Your task to perform on an android device: Search for sushi restaurants on Maps Image 0: 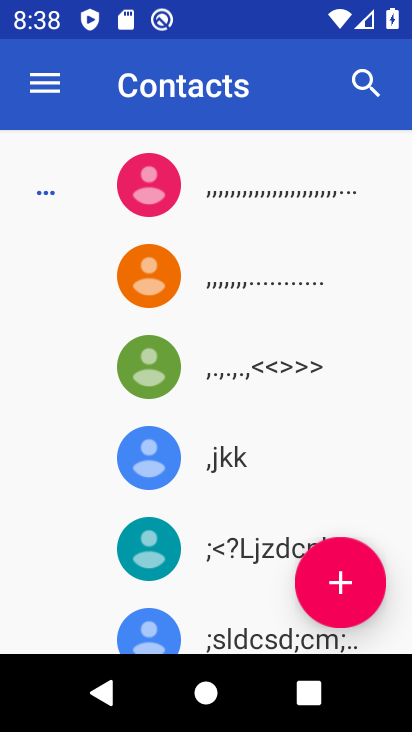
Step 0: press home button
Your task to perform on an android device: Search for sushi restaurants on Maps Image 1: 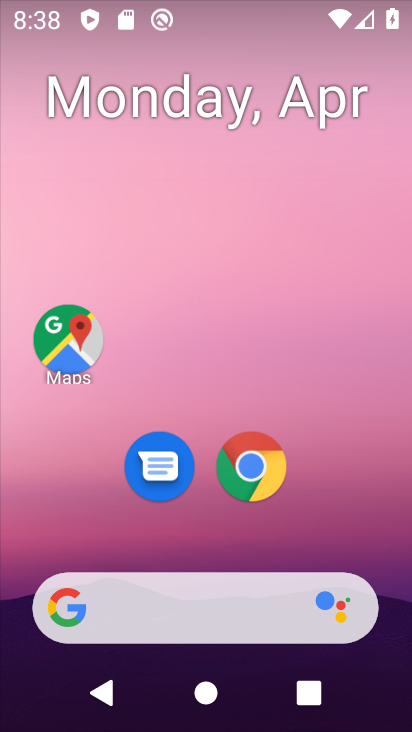
Step 1: click (72, 344)
Your task to perform on an android device: Search for sushi restaurants on Maps Image 2: 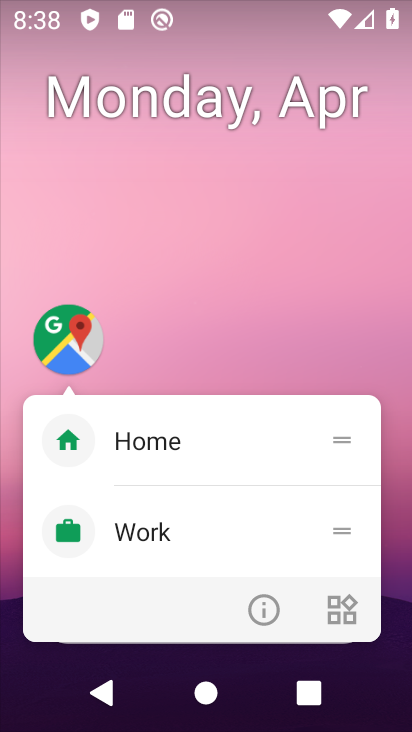
Step 2: click (72, 344)
Your task to perform on an android device: Search for sushi restaurants on Maps Image 3: 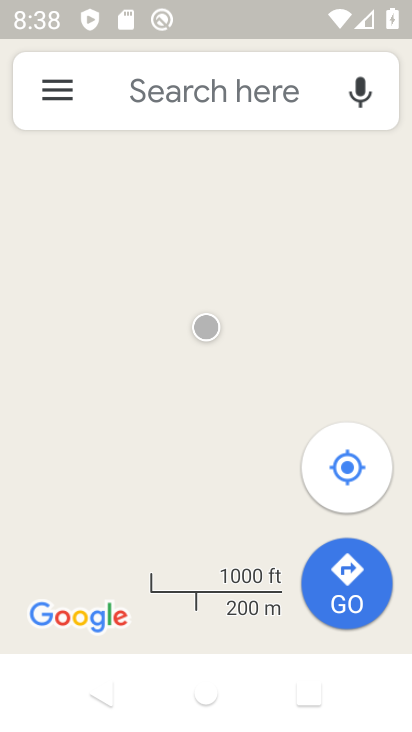
Step 3: click (207, 83)
Your task to perform on an android device: Search for sushi restaurants on Maps Image 4: 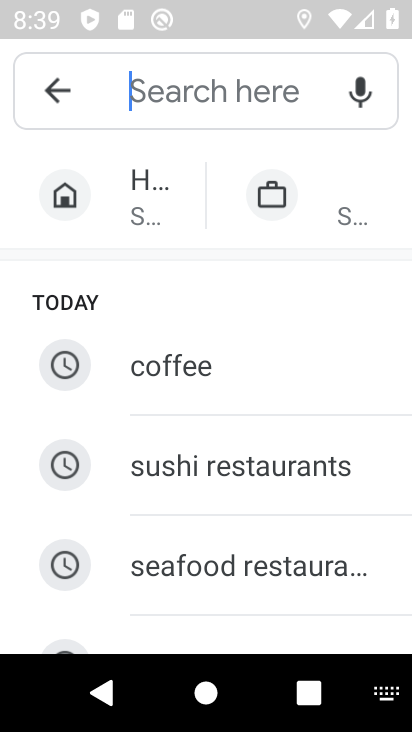
Step 4: type "sushi restaurants"
Your task to perform on an android device: Search for sushi restaurants on Maps Image 5: 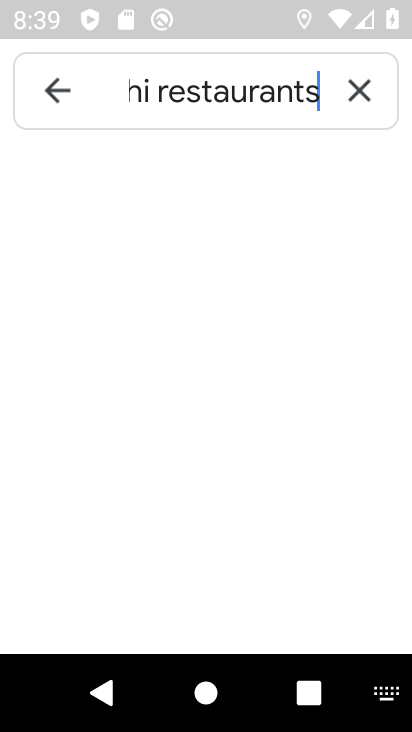
Step 5: type ""
Your task to perform on an android device: Search for sushi restaurants on Maps Image 6: 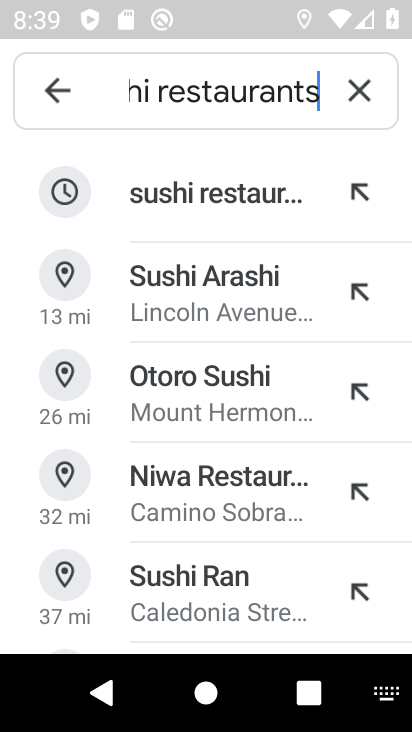
Step 6: click (208, 197)
Your task to perform on an android device: Search for sushi restaurants on Maps Image 7: 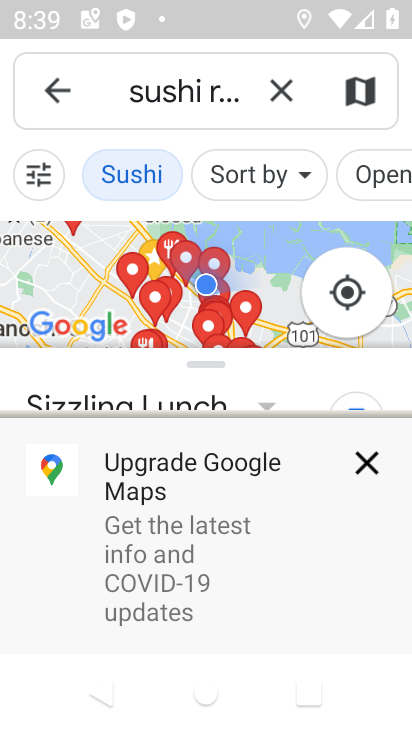
Step 7: click (367, 465)
Your task to perform on an android device: Search for sushi restaurants on Maps Image 8: 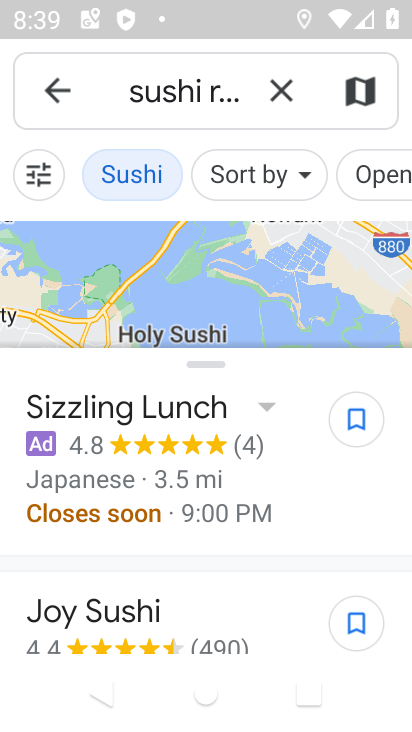
Step 8: task complete